Your task to perform on an android device: Open network settings Image 0: 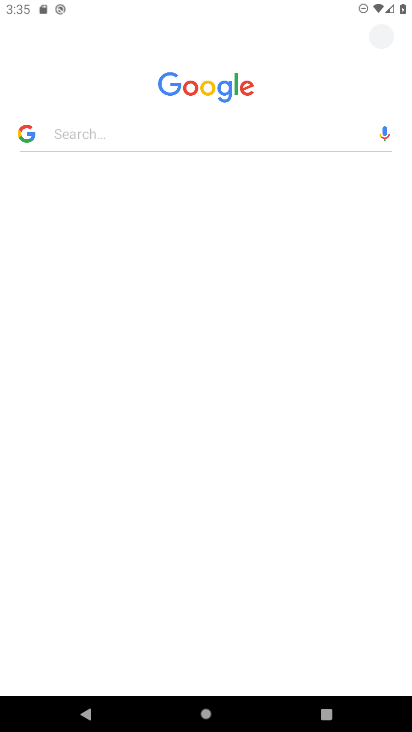
Step 0: press home button
Your task to perform on an android device: Open network settings Image 1: 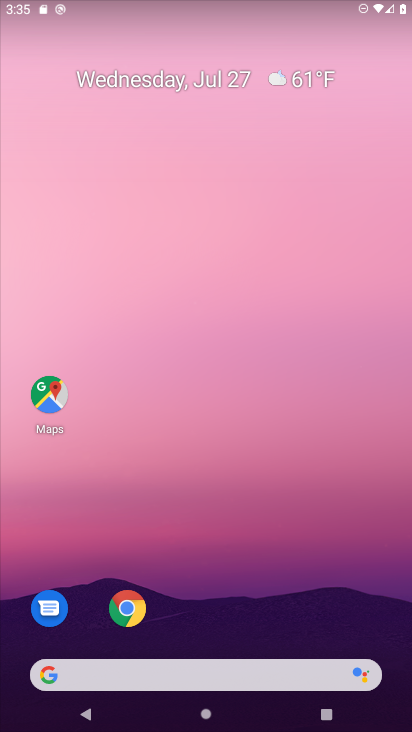
Step 1: drag from (234, 726) to (238, 46)
Your task to perform on an android device: Open network settings Image 2: 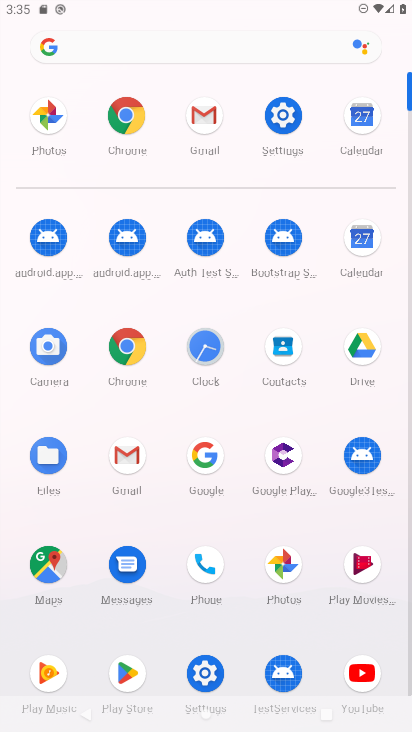
Step 2: click (287, 104)
Your task to perform on an android device: Open network settings Image 3: 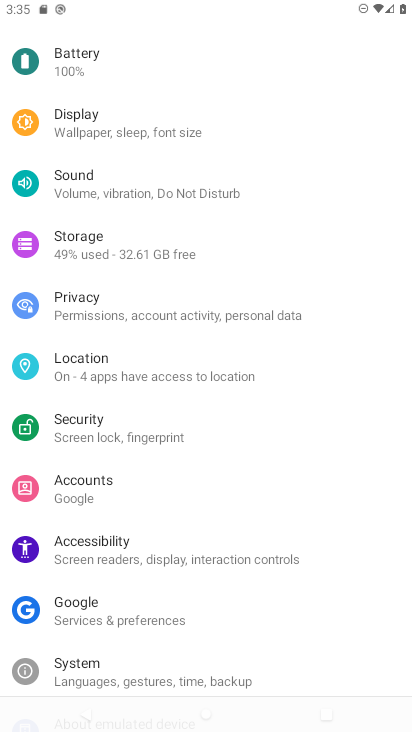
Step 3: drag from (138, 88) to (106, 512)
Your task to perform on an android device: Open network settings Image 4: 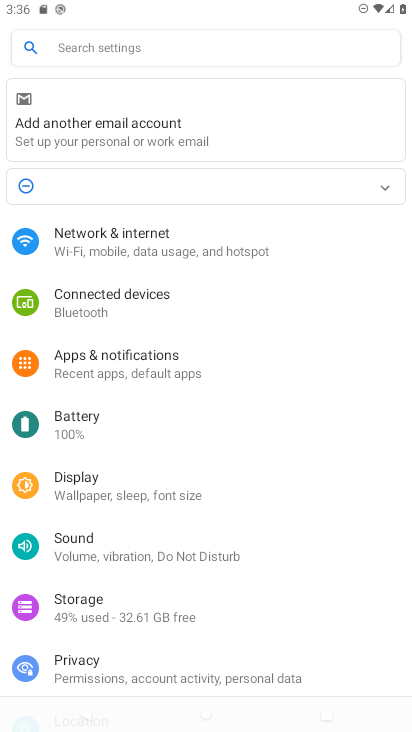
Step 4: click (93, 244)
Your task to perform on an android device: Open network settings Image 5: 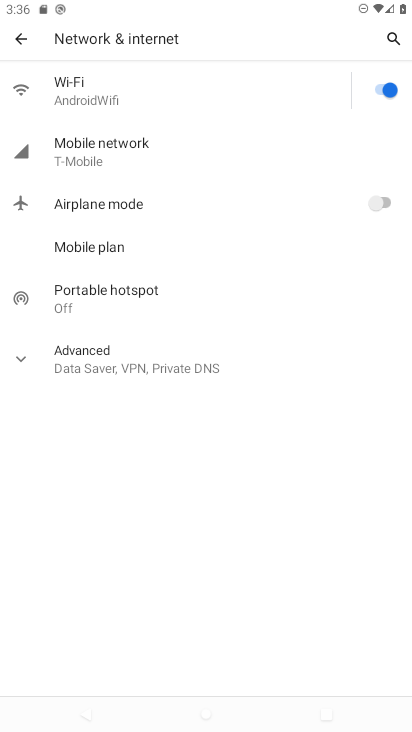
Step 5: click (118, 142)
Your task to perform on an android device: Open network settings Image 6: 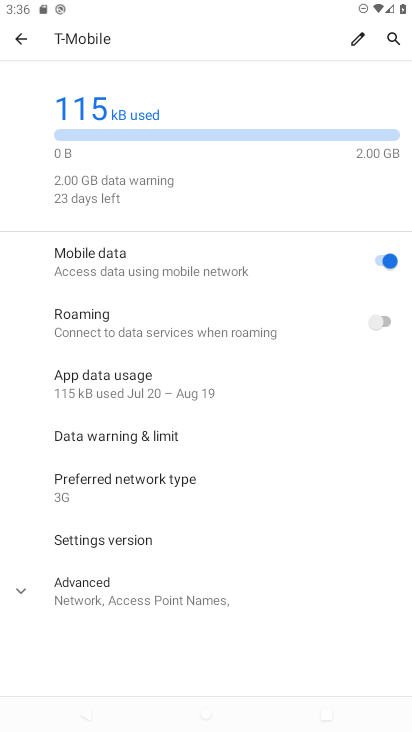
Step 6: task complete